Your task to perform on an android device: Check the weather Image 0: 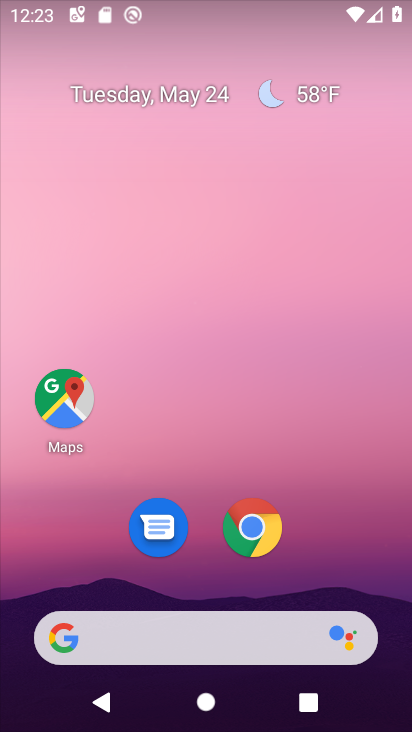
Step 0: click (214, 642)
Your task to perform on an android device: Check the weather Image 1: 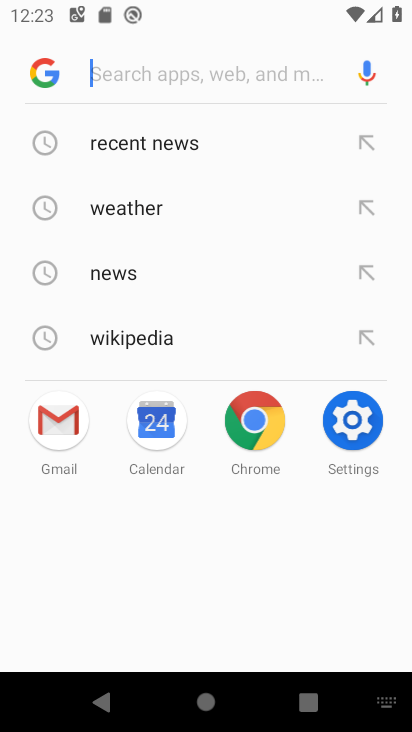
Step 1: click (160, 213)
Your task to perform on an android device: Check the weather Image 2: 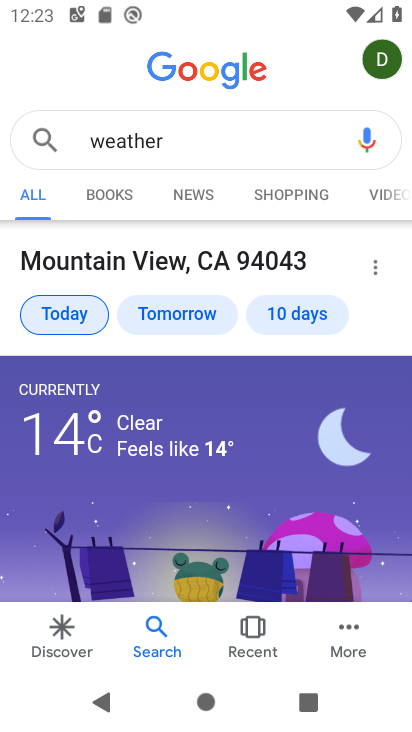
Step 2: task complete